Your task to perform on an android device: Search for sushi restaurants on Maps Image 0: 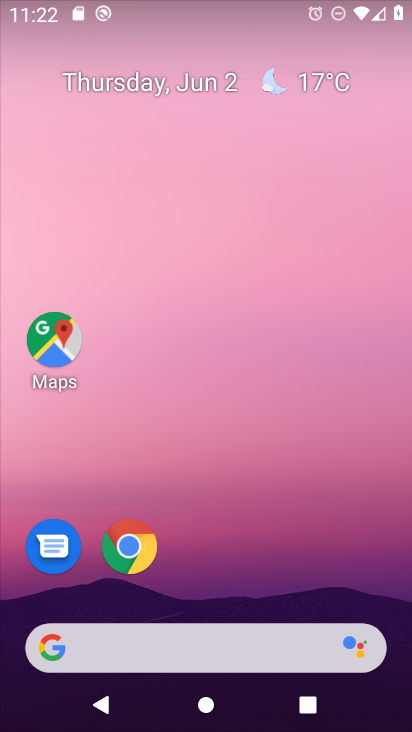
Step 0: drag from (213, 404) to (183, 24)
Your task to perform on an android device: Search for sushi restaurants on Maps Image 1: 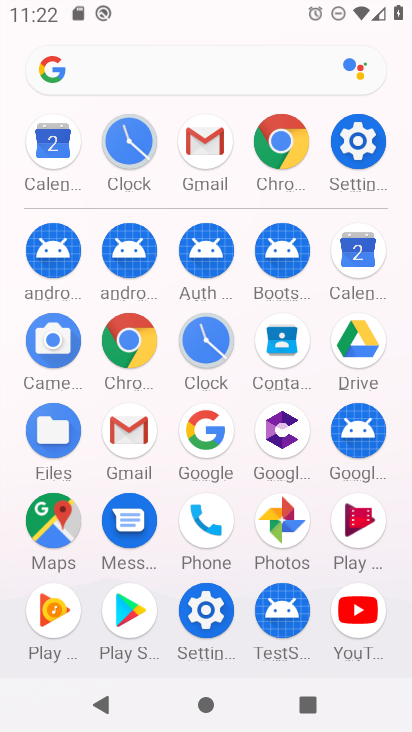
Step 1: click (51, 516)
Your task to perform on an android device: Search for sushi restaurants on Maps Image 2: 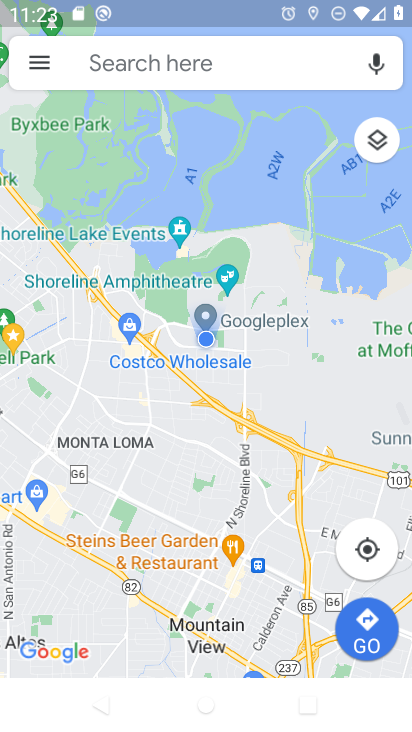
Step 2: click (263, 55)
Your task to perform on an android device: Search for sushi restaurants on Maps Image 3: 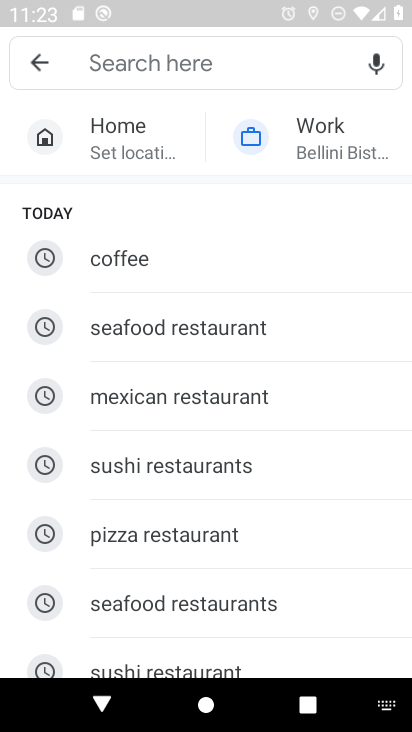
Step 3: click (153, 452)
Your task to perform on an android device: Search for sushi restaurants on Maps Image 4: 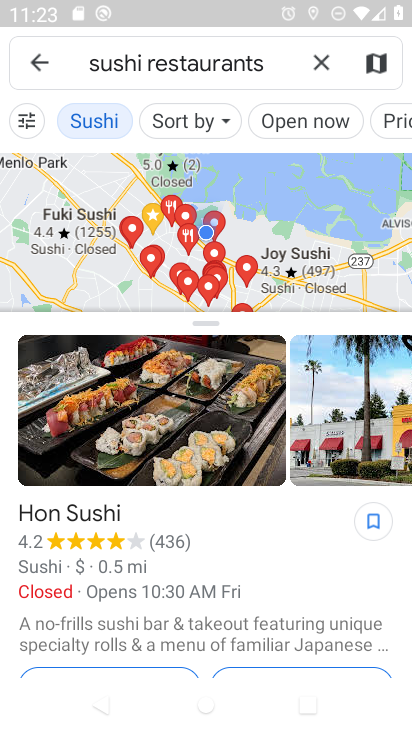
Step 4: task complete